Your task to perform on an android device: turn off javascript in the chrome app Image 0: 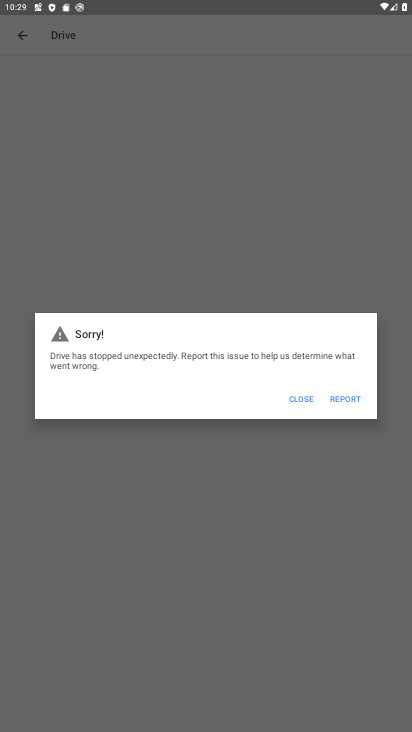
Step 0: press home button
Your task to perform on an android device: turn off javascript in the chrome app Image 1: 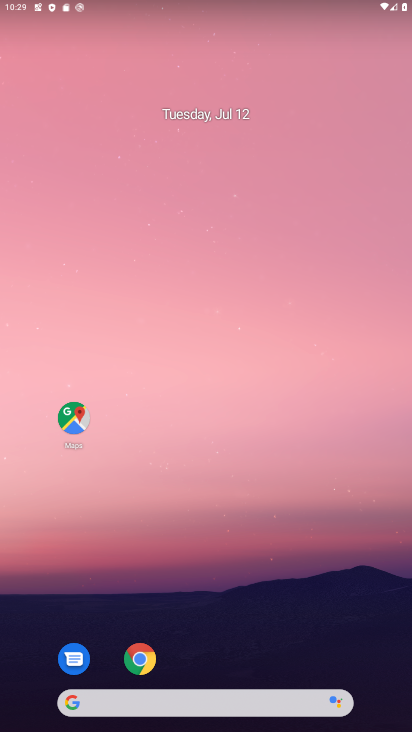
Step 1: click (129, 664)
Your task to perform on an android device: turn off javascript in the chrome app Image 2: 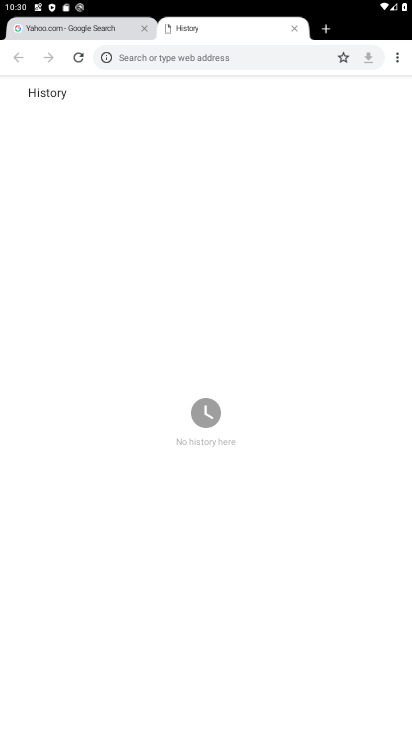
Step 2: click (396, 54)
Your task to perform on an android device: turn off javascript in the chrome app Image 3: 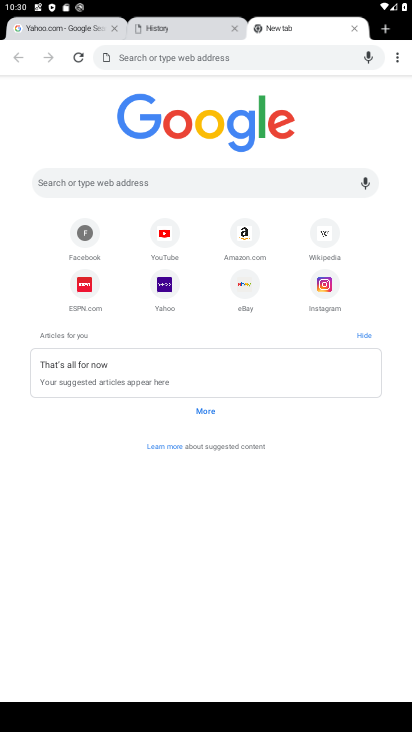
Step 3: click (396, 54)
Your task to perform on an android device: turn off javascript in the chrome app Image 4: 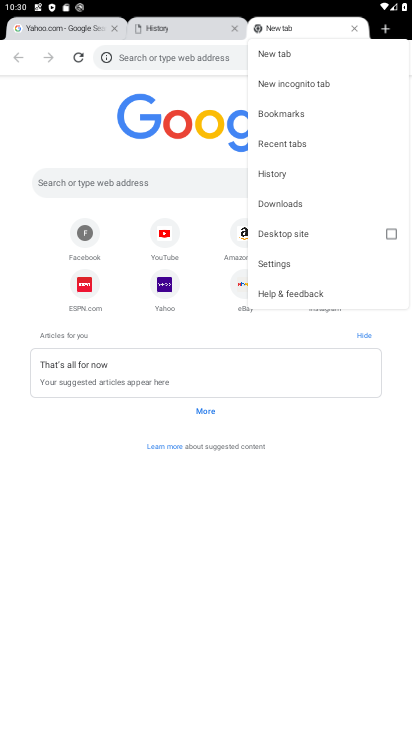
Step 4: click (278, 255)
Your task to perform on an android device: turn off javascript in the chrome app Image 5: 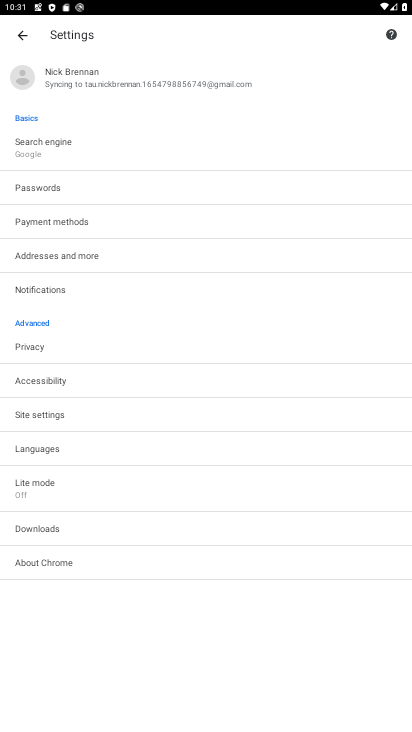
Step 5: click (50, 416)
Your task to perform on an android device: turn off javascript in the chrome app Image 6: 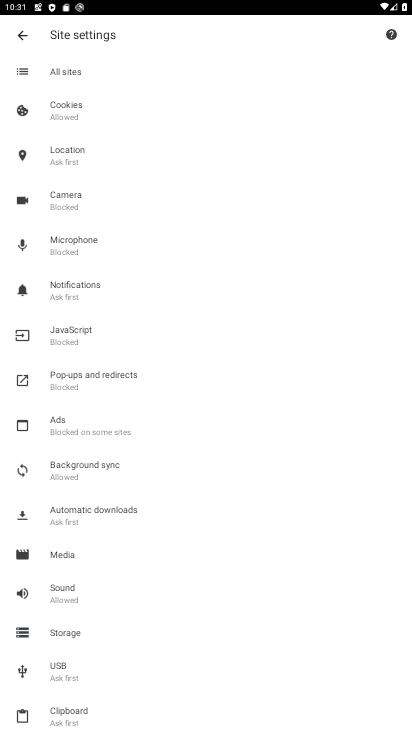
Step 6: click (72, 335)
Your task to perform on an android device: turn off javascript in the chrome app Image 7: 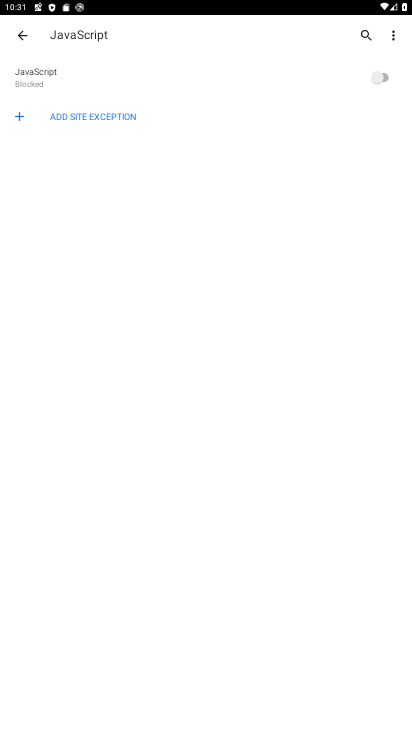
Step 7: task complete